Your task to perform on an android device: turn pop-ups off in chrome Image 0: 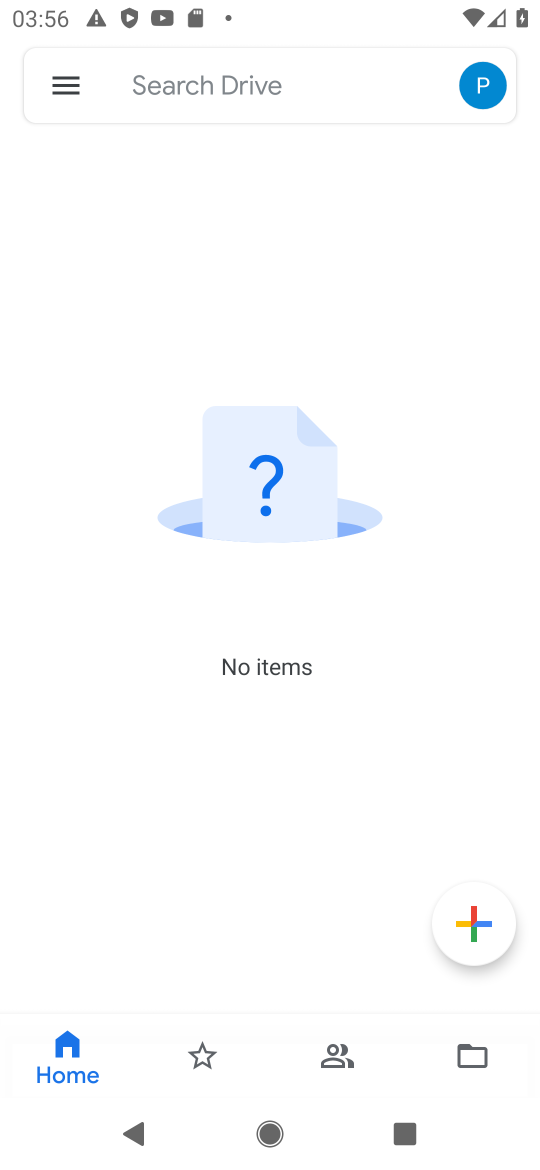
Step 0: press home button
Your task to perform on an android device: turn pop-ups off in chrome Image 1: 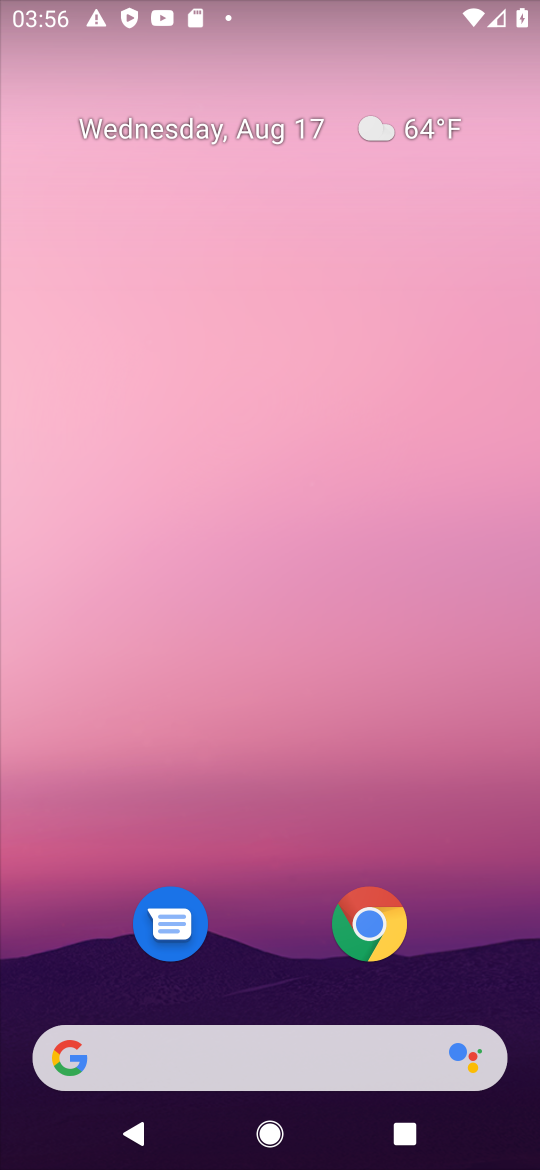
Step 1: drag from (264, 986) to (224, 43)
Your task to perform on an android device: turn pop-ups off in chrome Image 2: 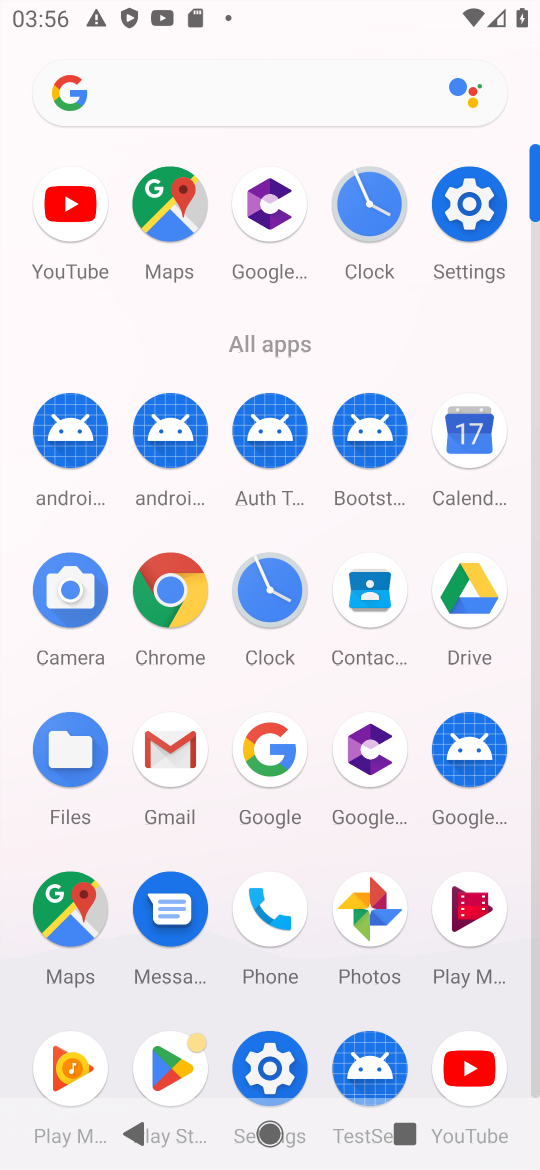
Step 2: click (166, 603)
Your task to perform on an android device: turn pop-ups off in chrome Image 3: 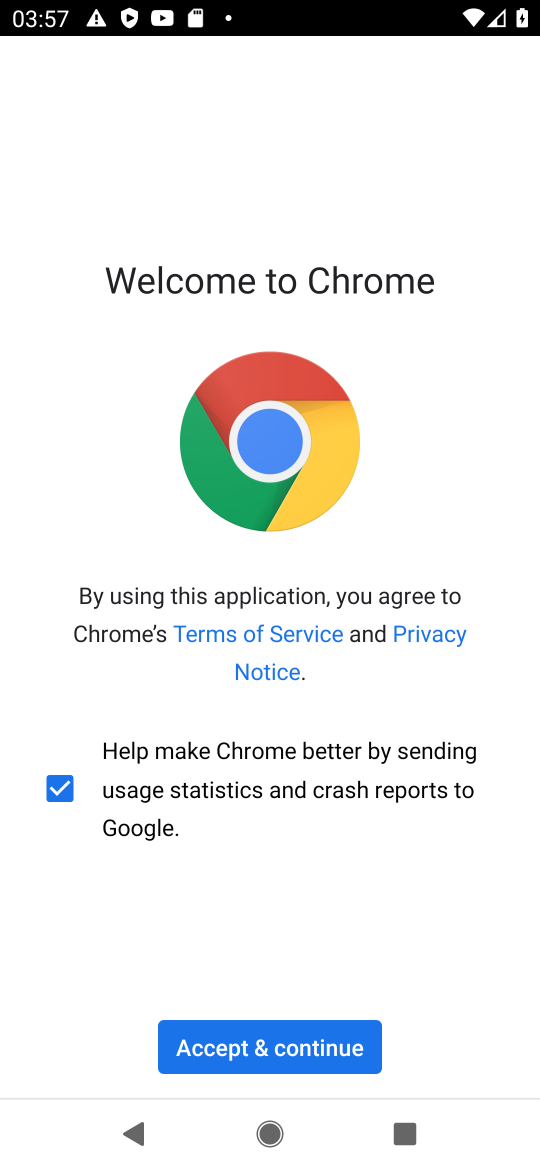
Step 3: click (345, 1051)
Your task to perform on an android device: turn pop-ups off in chrome Image 4: 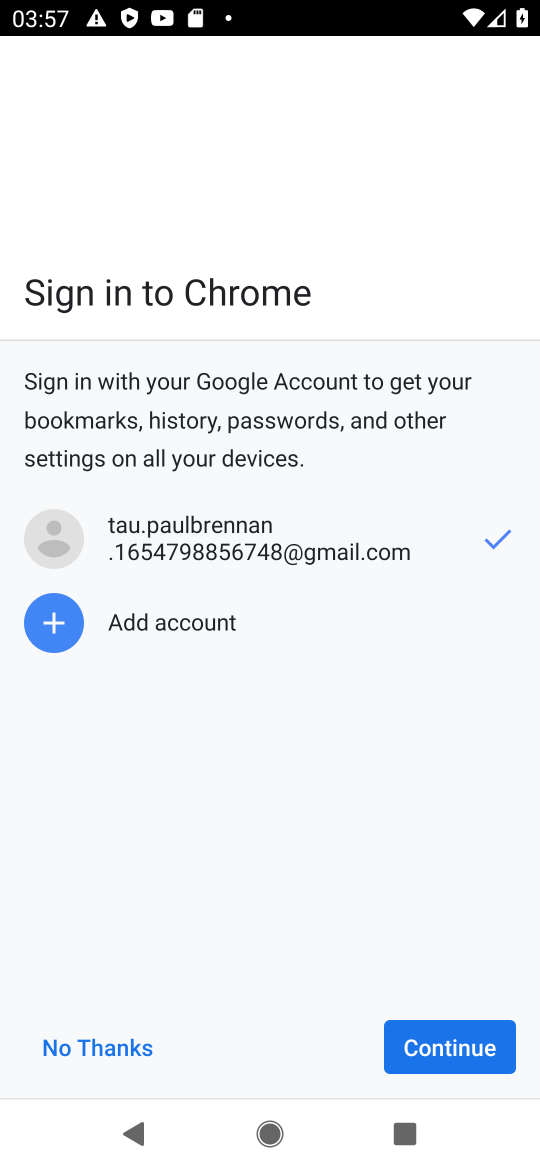
Step 4: click (420, 1020)
Your task to perform on an android device: turn pop-ups off in chrome Image 5: 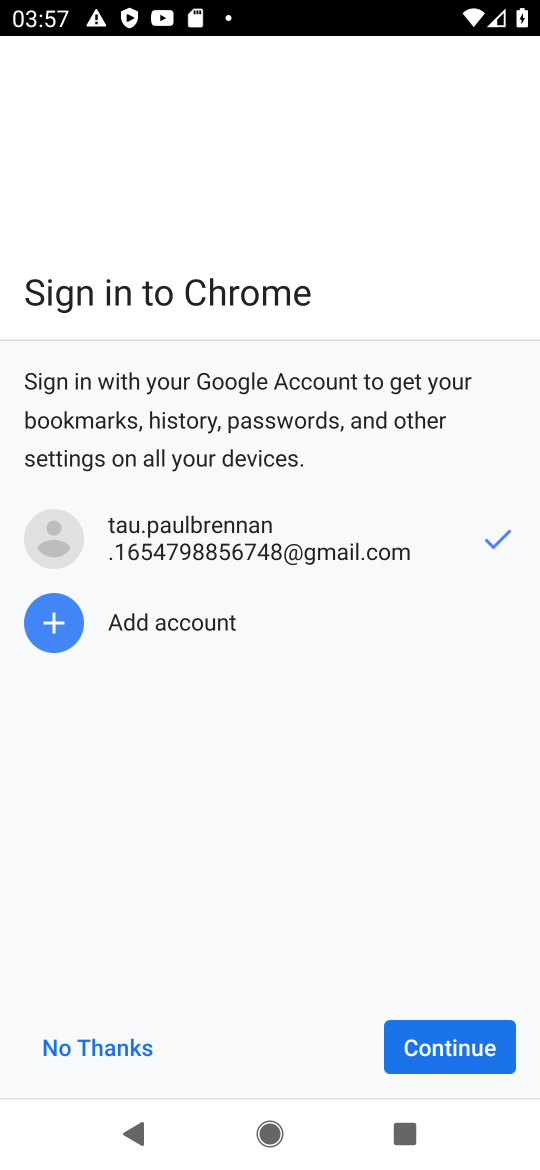
Step 5: click (423, 1040)
Your task to perform on an android device: turn pop-ups off in chrome Image 6: 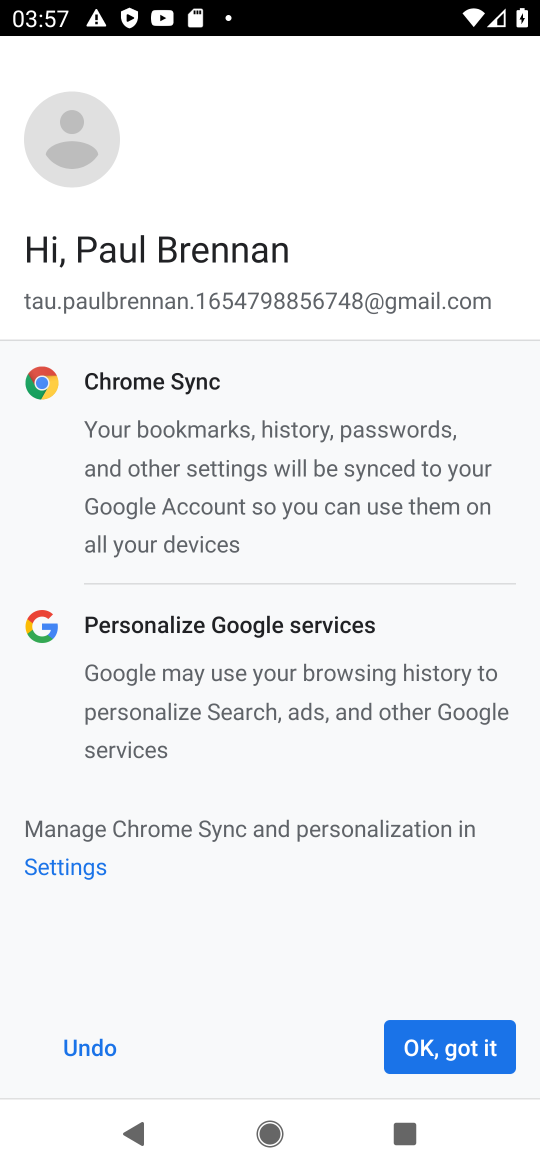
Step 6: click (409, 1045)
Your task to perform on an android device: turn pop-ups off in chrome Image 7: 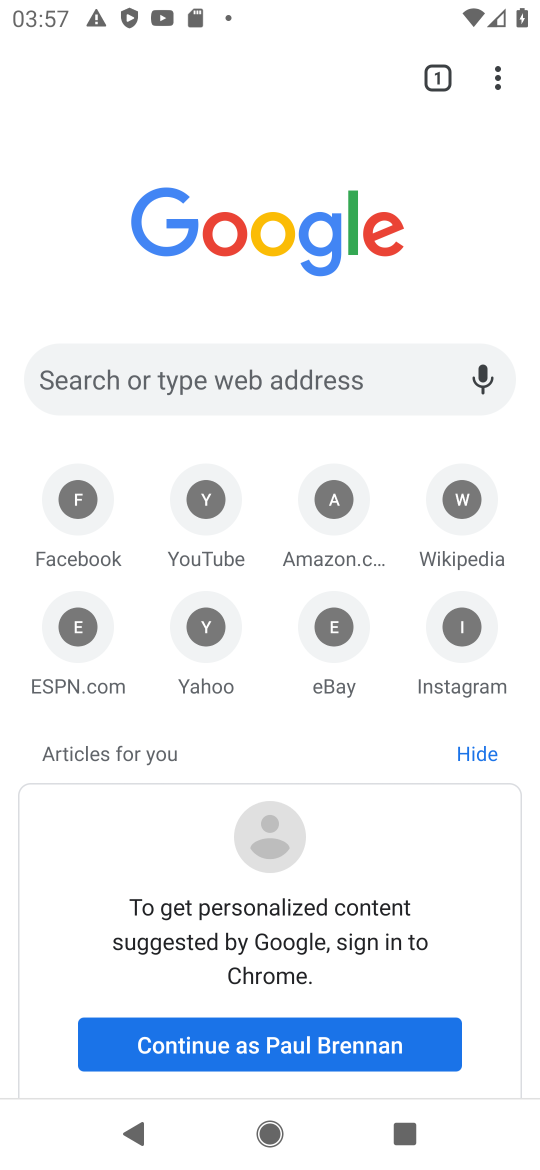
Step 7: click (502, 79)
Your task to perform on an android device: turn pop-ups off in chrome Image 8: 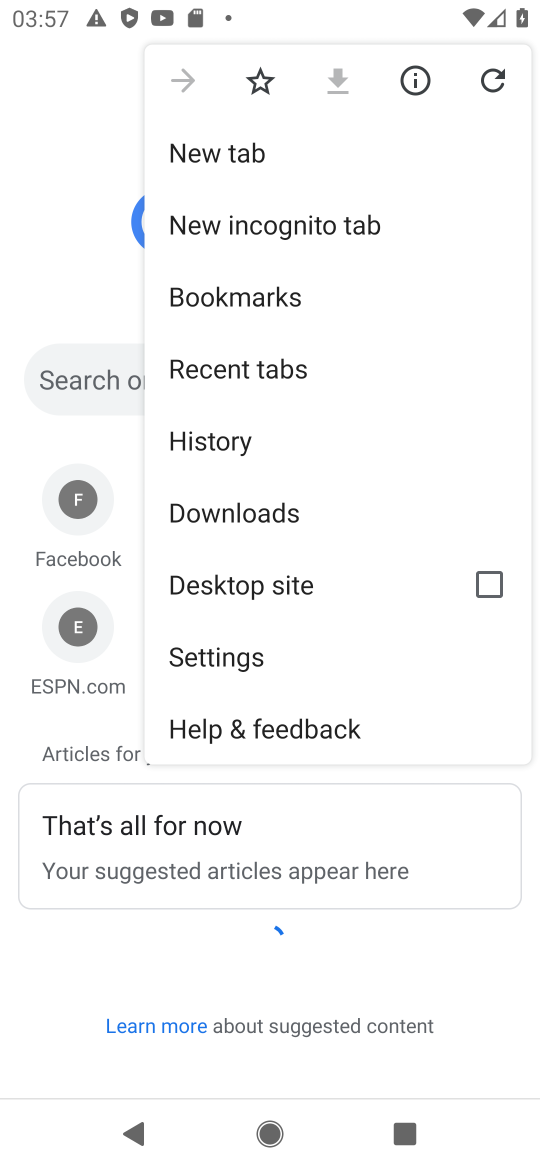
Step 8: click (249, 680)
Your task to perform on an android device: turn pop-ups off in chrome Image 9: 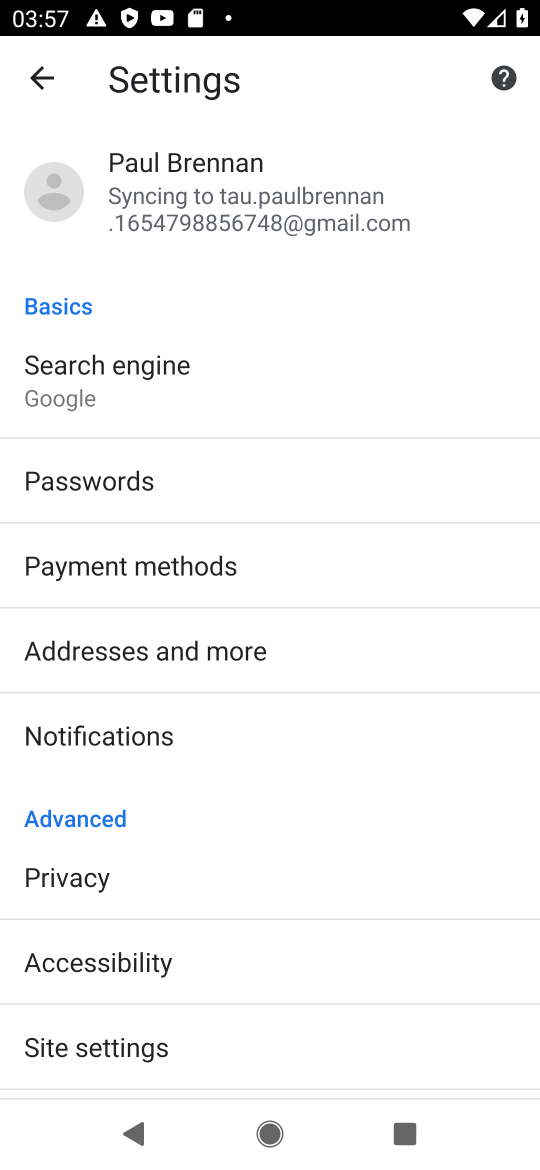
Step 9: click (94, 1034)
Your task to perform on an android device: turn pop-ups off in chrome Image 10: 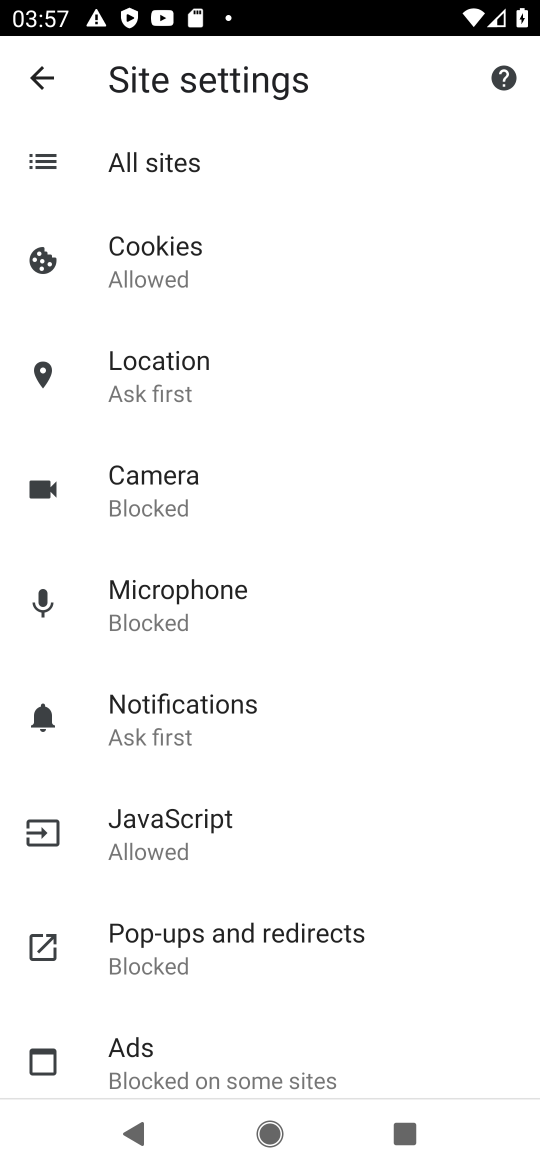
Step 10: click (173, 968)
Your task to perform on an android device: turn pop-ups off in chrome Image 11: 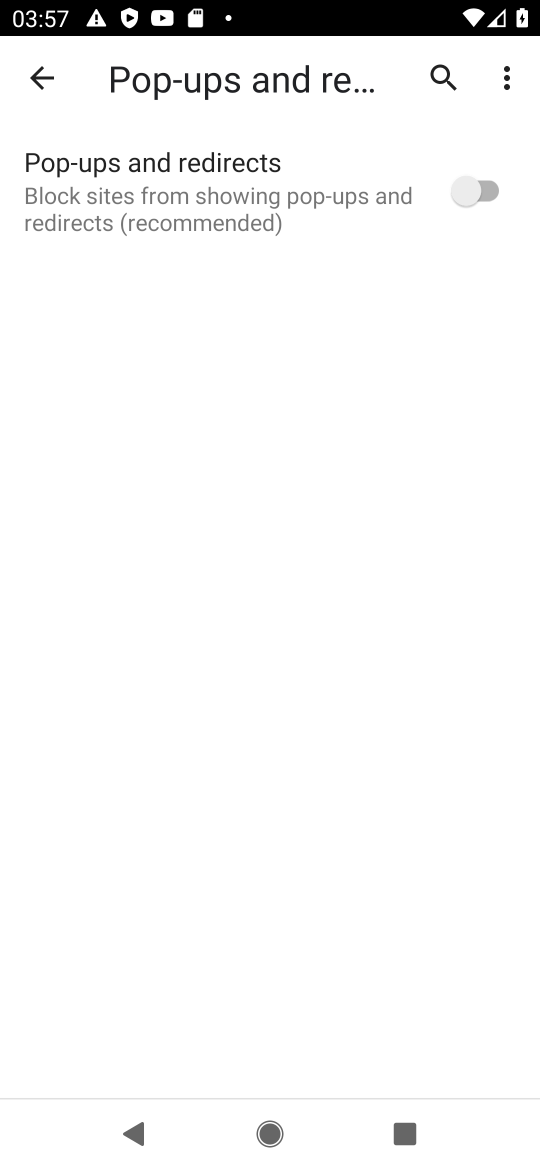
Step 11: task complete